Your task to perform on an android device: Do I have any events tomorrow? Image 0: 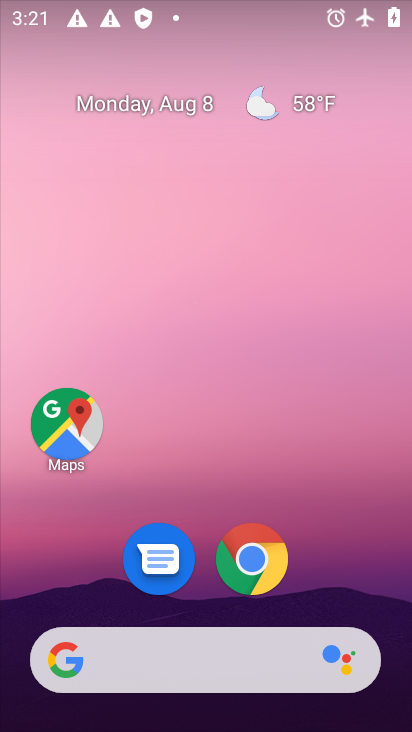
Step 0: drag from (178, 643) to (248, 105)
Your task to perform on an android device: Do I have any events tomorrow? Image 1: 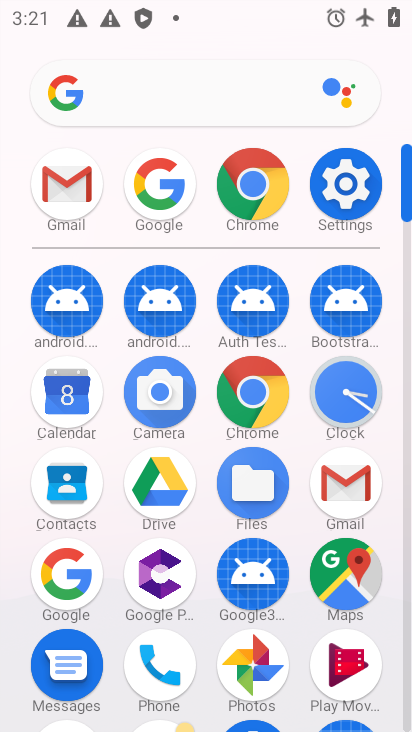
Step 1: click (67, 398)
Your task to perform on an android device: Do I have any events tomorrow? Image 2: 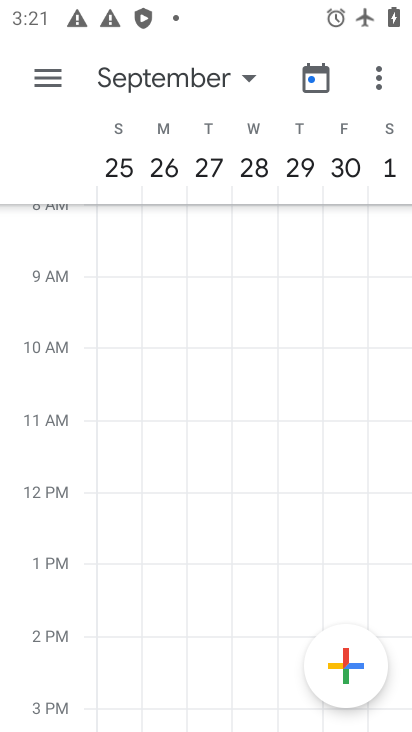
Step 2: click (311, 80)
Your task to perform on an android device: Do I have any events tomorrow? Image 3: 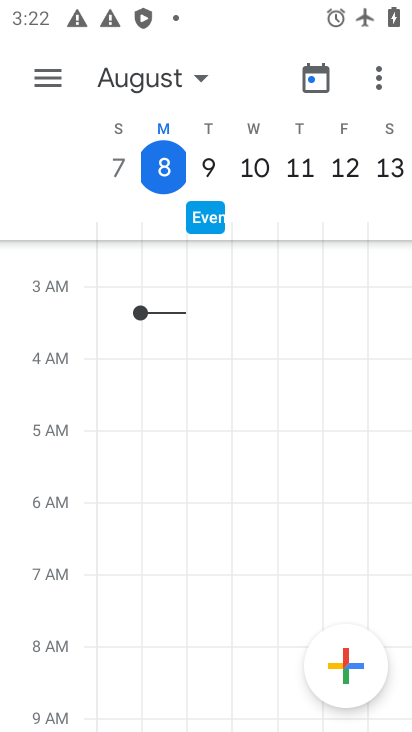
Step 3: click (196, 73)
Your task to perform on an android device: Do I have any events tomorrow? Image 4: 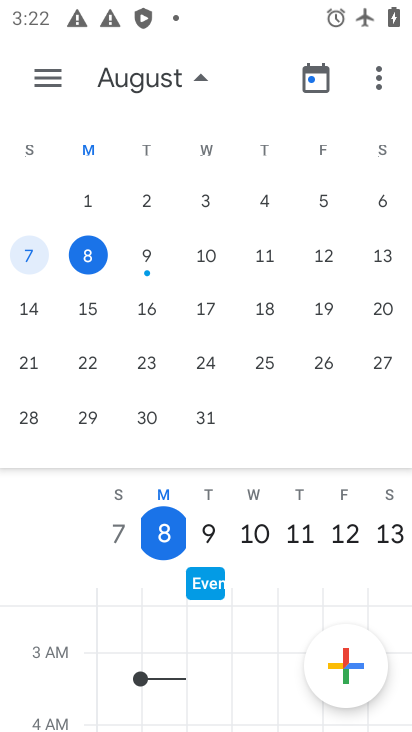
Step 4: click (150, 269)
Your task to perform on an android device: Do I have any events tomorrow? Image 5: 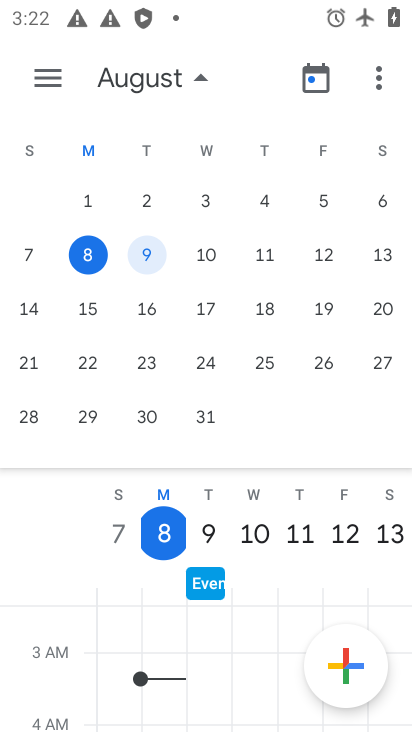
Step 5: click (55, 83)
Your task to perform on an android device: Do I have any events tomorrow? Image 6: 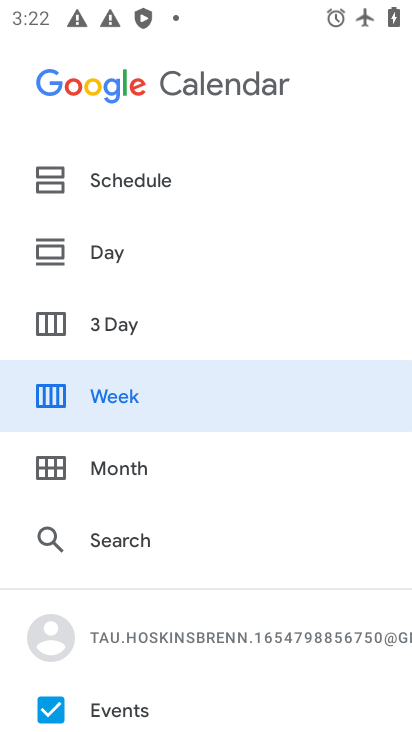
Step 6: click (120, 176)
Your task to perform on an android device: Do I have any events tomorrow? Image 7: 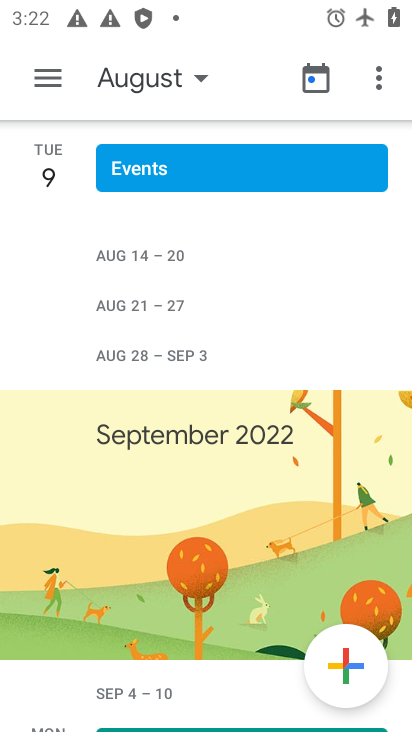
Step 7: task complete